Your task to perform on an android device: turn off location history Image 0: 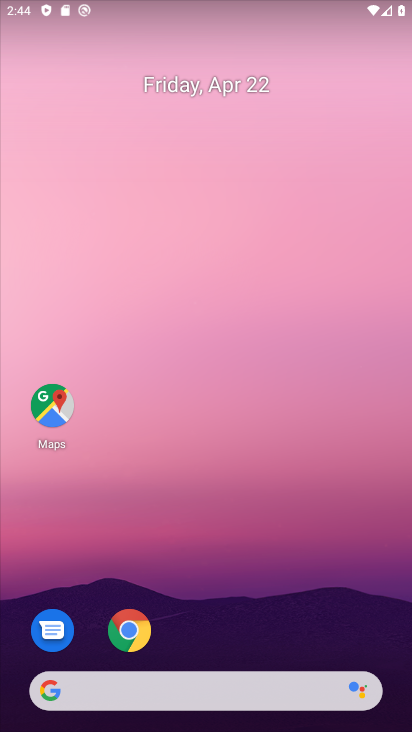
Step 0: drag from (370, 585) to (369, 175)
Your task to perform on an android device: turn off location history Image 1: 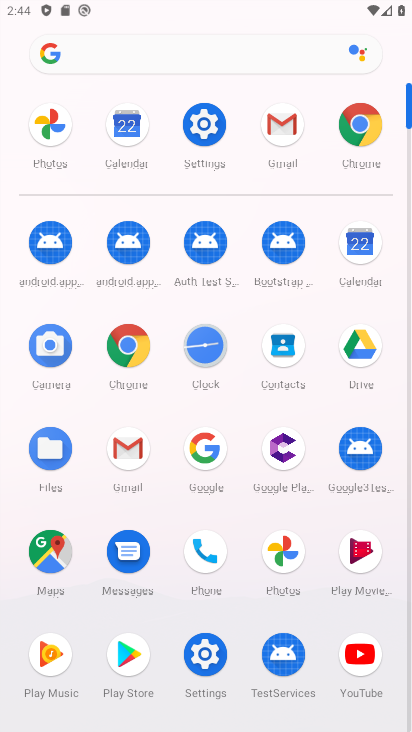
Step 1: click (207, 115)
Your task to perform on an android device: turn off location history Image 2: 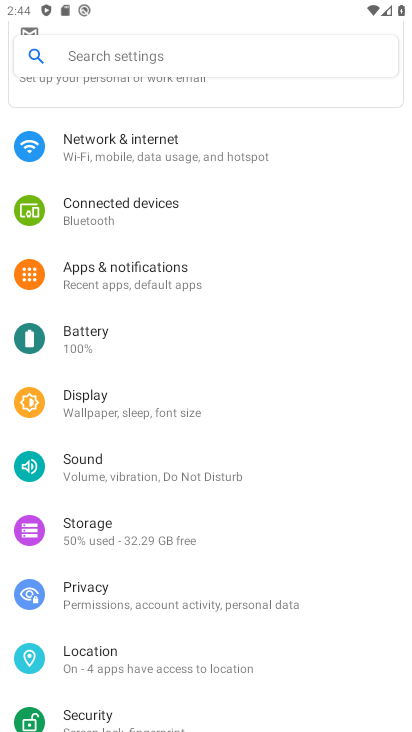
Step 2: click (126, 649)
Your task to perform on an android device: turn off location history Image 3: 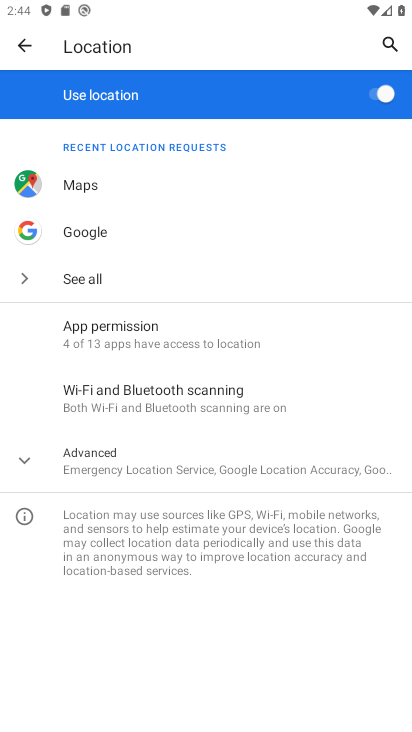
Step 3: click (184, 471)
Your task to perform on an android device: turn off location history Image 4: 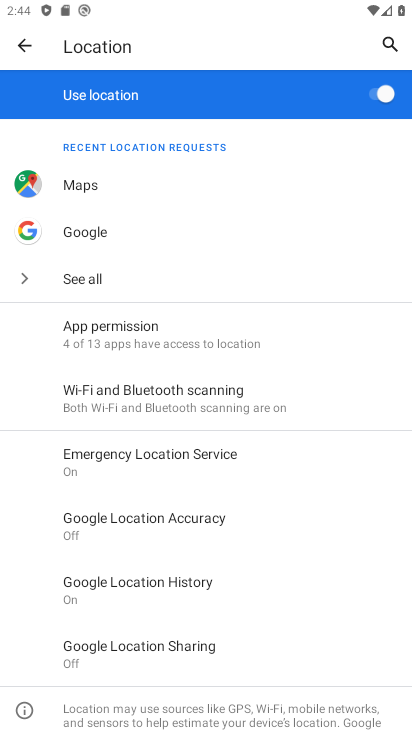
Step 4: click (166, 581)
Your task to perform on an android device: turn off location history Image 5: 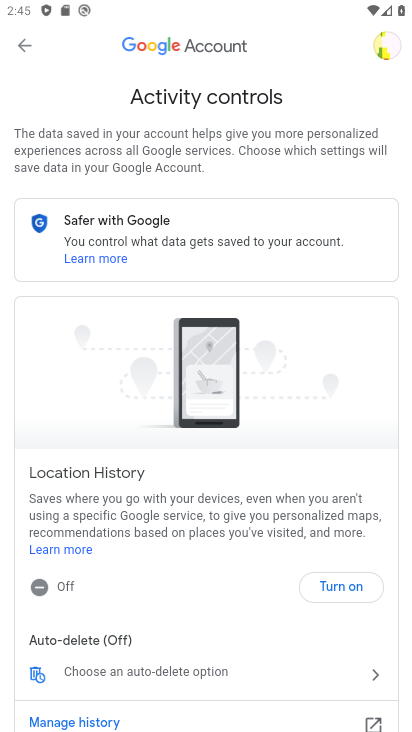
Step 5: drag from (244, 635) to (305, 391)
Your task to perform on an android device: turn off location history Image 6: 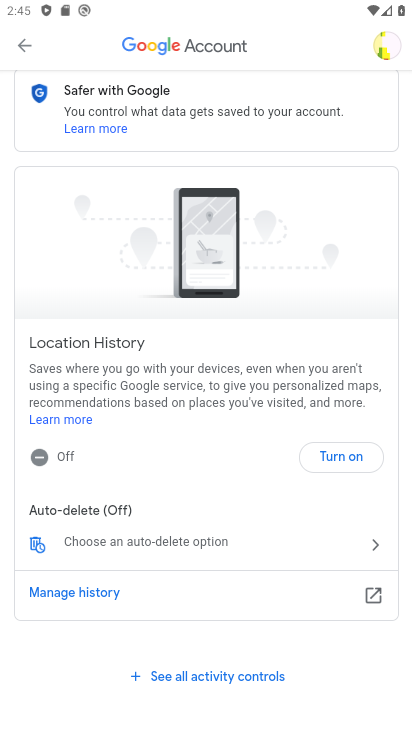
Step 6: click (320, 462)
Your task to perform on an android device: turn off location history Image 7: 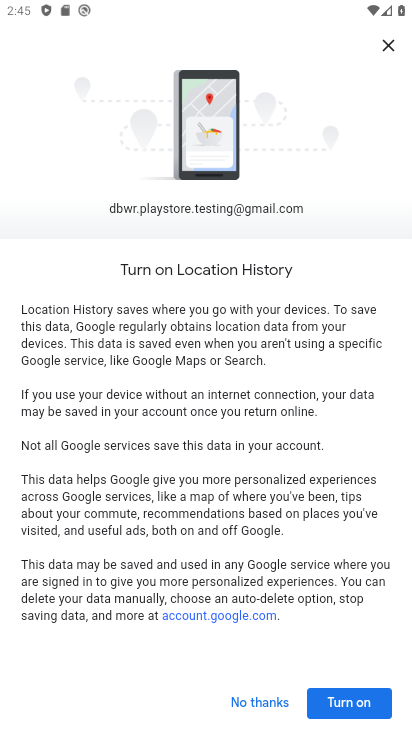
Step 7: task complete